Your task to perform on an android device: check android version Image 0: 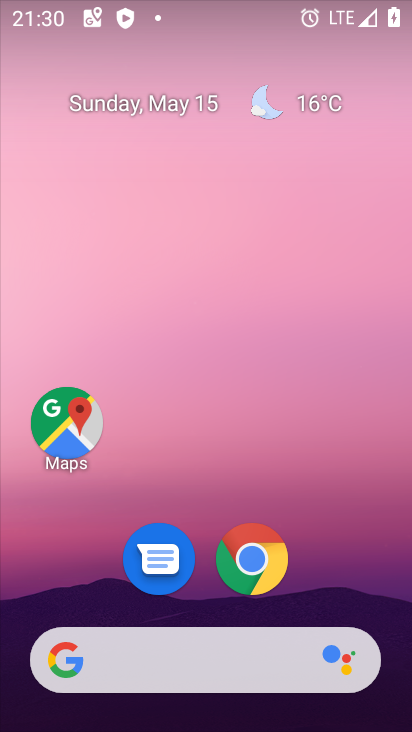
Step 0: drag from (360, 530) to (6, 301)
Your task to perform on an android device: check android version Image 1: 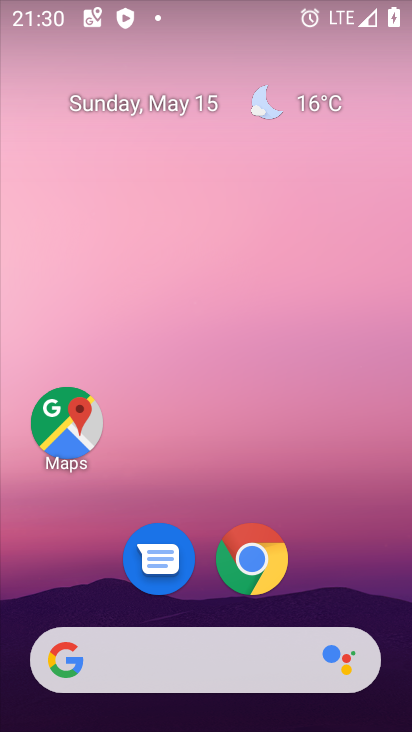
Step 1: drag from (318, 473) to (301, 58)
Your task to perform on an android device: check android version Image 2: 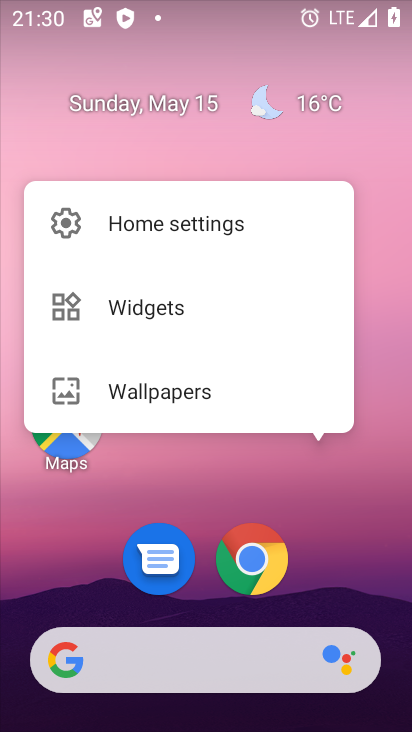
Step 2: click (342, 490)
Your task to perform on an android device: check android version Image 3: 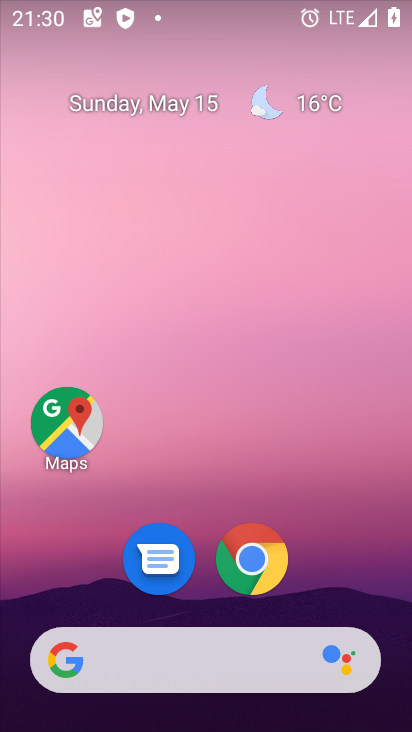
Step 3: click (332, 557)
Your task to perform on an android device: check android version Image 4: 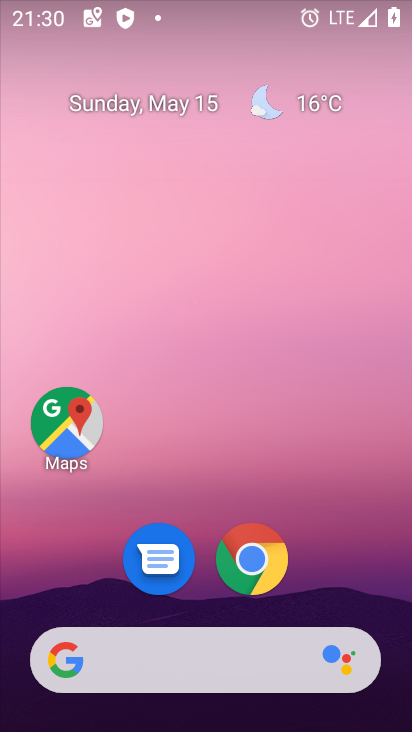
Step 4: drag from (332, 557) to (337, 188)
Your task to perform on an android device: check android version Image 5: 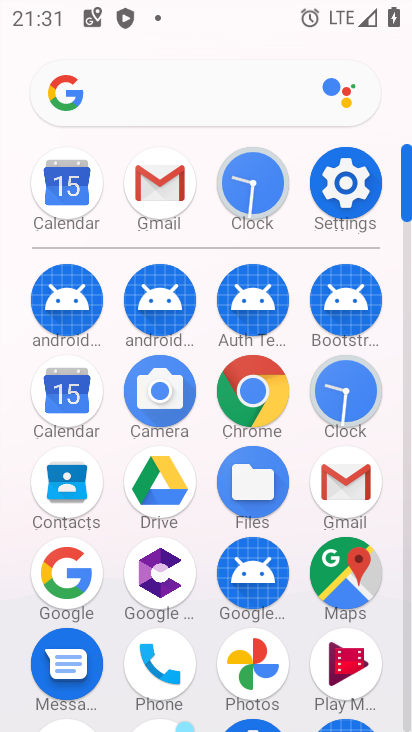
Step 5: click (354, 179)
Your task to perform on an android device: check android version Image 6: 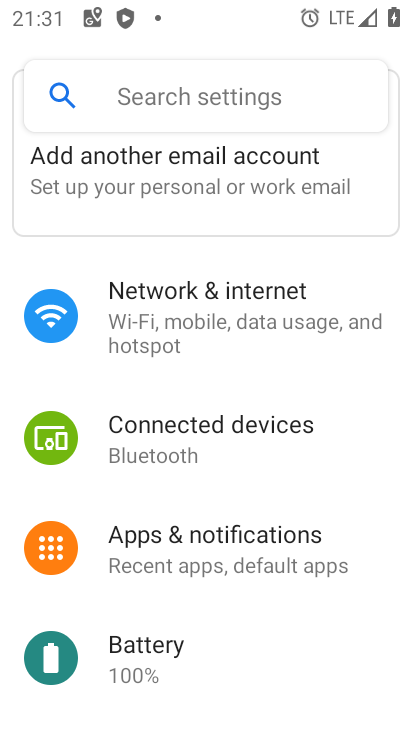
Step 6: drag from (210, 624) to (104, 36)
Your task to perform on an android device: check android version Image 7: 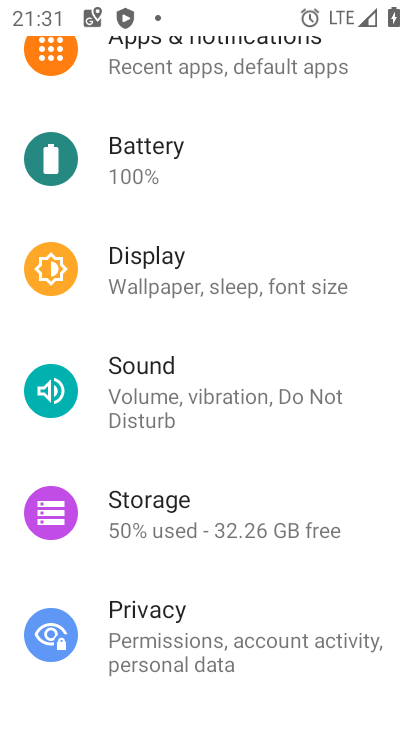
Step 7: drag from (257, 613) to (235, 233)
Your task to perform on an android device: check android version Image 8: 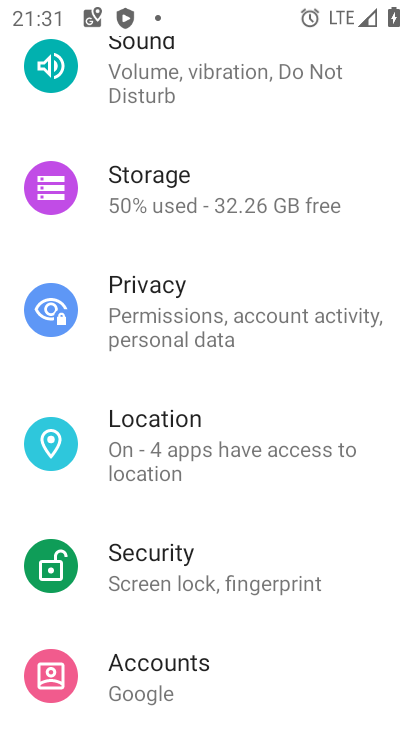
Step 8: drag from (242, 529) to (194, 88)
Your task to perform on an android device: check android version Image 9: 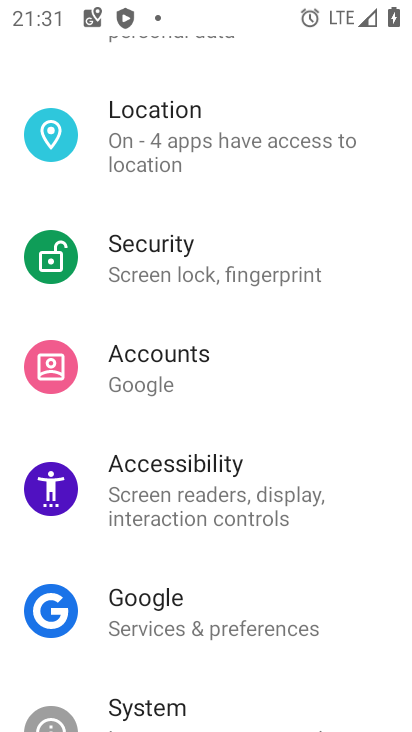
Step 9: drag from (246, 576) to (242, 279)
Your task to perform on an android device: check android version Image 10: 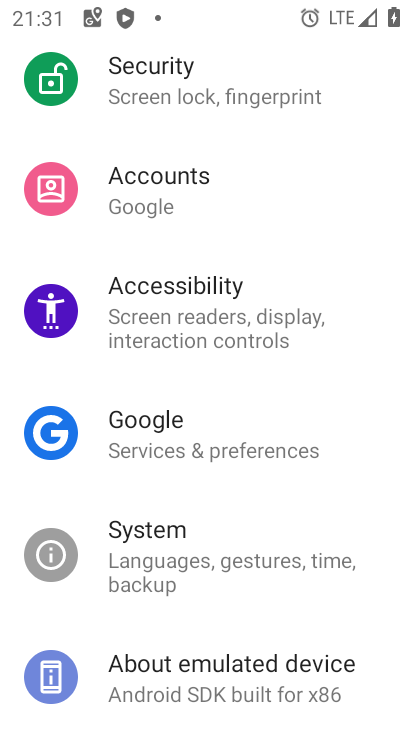
Step 10: click (235, 672)
Your task to perform on an android device: check android version Image 11: 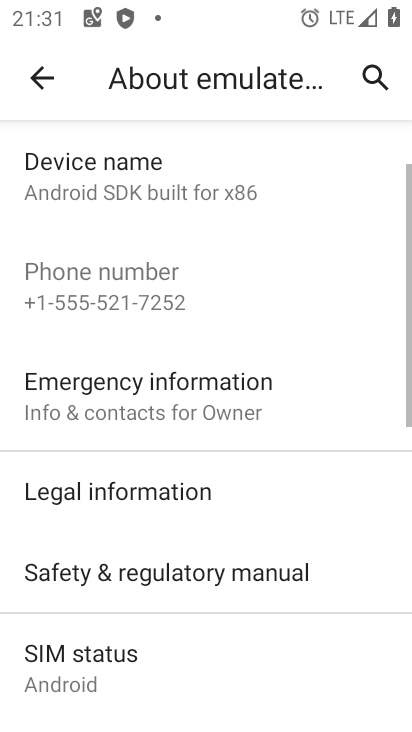
Step 11: task complete